Your task to perform on an android device: Show me the alarms in the clock app Image 0: 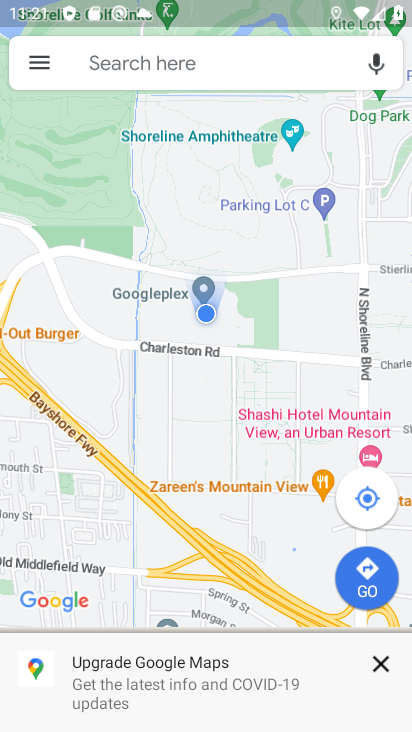
Step 0: click (208, 207)
Your task to perform on an android device: Show me the alarms in the clock app Image 1: 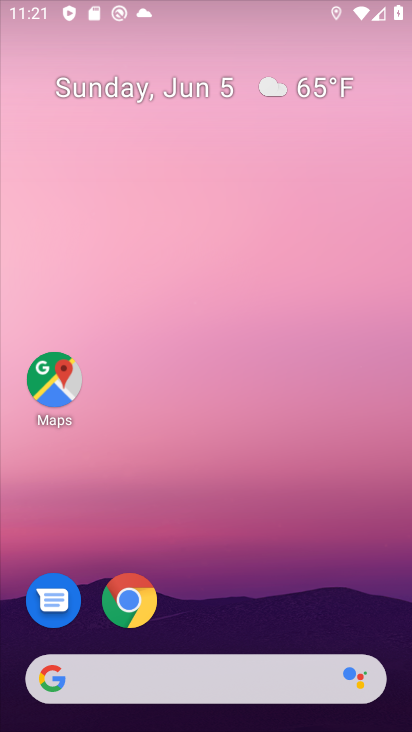
Step 1: drag from (235, 573) to (200, 92)
Your task to perform on an android device: Show me the alarms in the clock app Image 2: 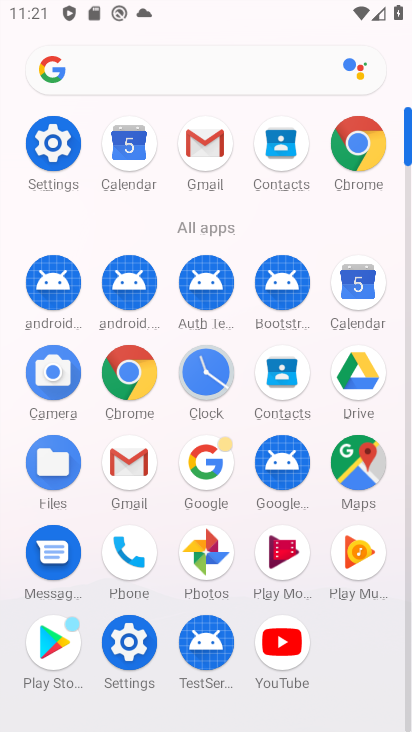
Step 2: press back button
Your task to perform on an android device: Show me the alarms in the clock app Image 3: 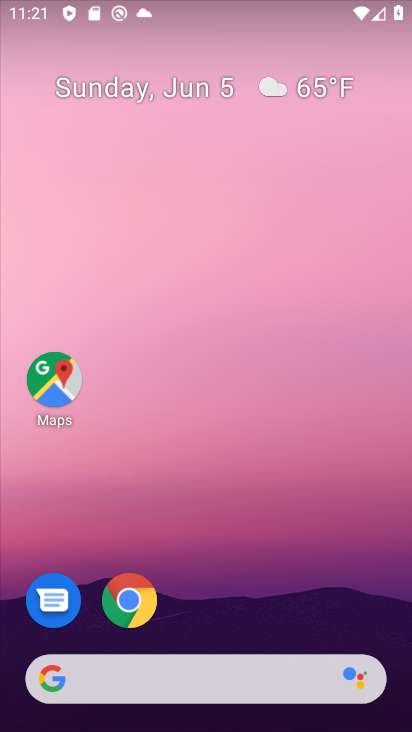
Step 3: drag from (254, 705) to (166, 85)
Your task to perform on an android device: Show me the alarms in the clock app Image 4: 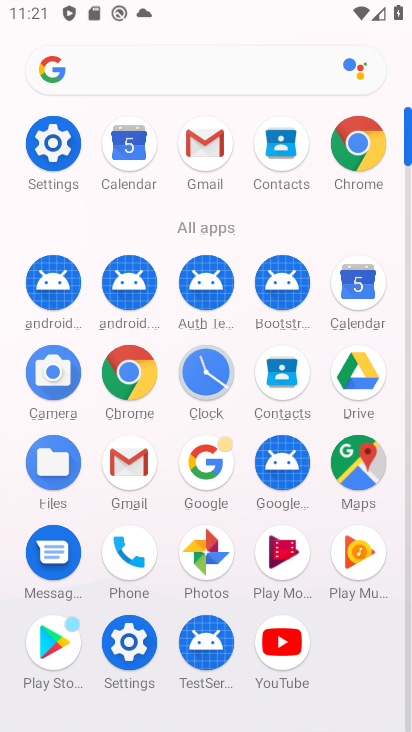
Step 4: click (196, 388)
Your task to perform on an android device: Show me the alarms in the clock app Image 5: 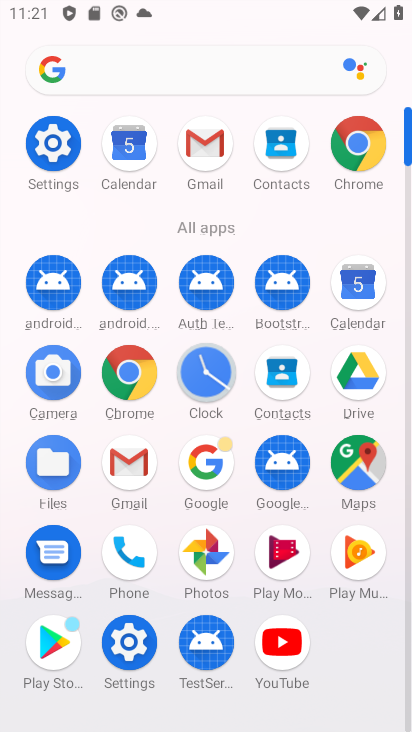
Step 5: click (196, 387)
Your task to perform on an android device: Show me the alarms in the clock app Image 6: 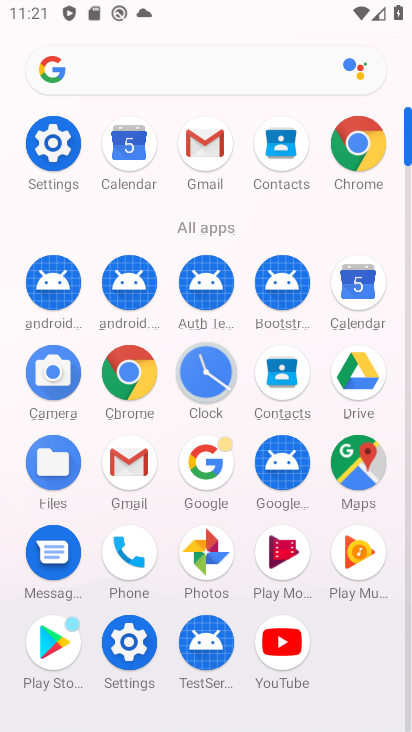
Step 6: click (196, 387)
Your task to perform on an android device: Show me the alarms in the clock app Image 7: 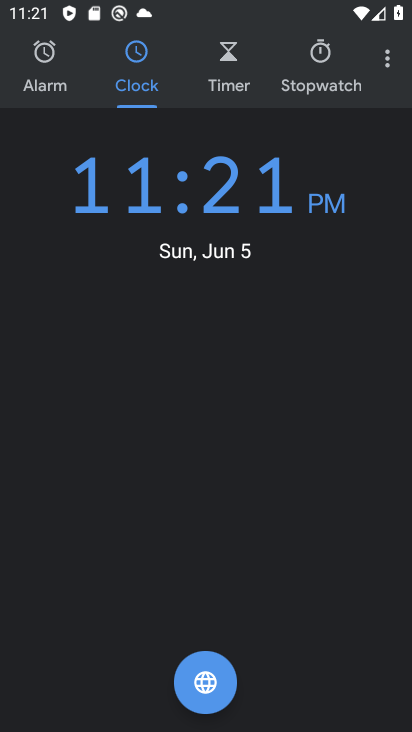
Step 7: click (56, 71)
Your task to perform on an android device: Show me the alarms in the clock app Image 8: 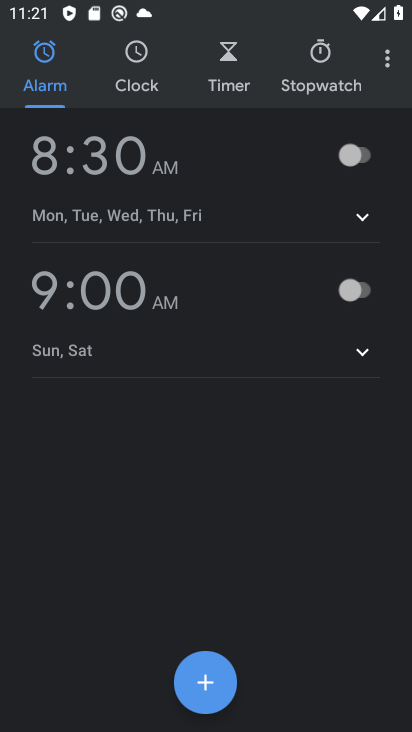
Step 8: task complete